Your task to perform on an android device: clear all cookies in the chrome app Image 0: 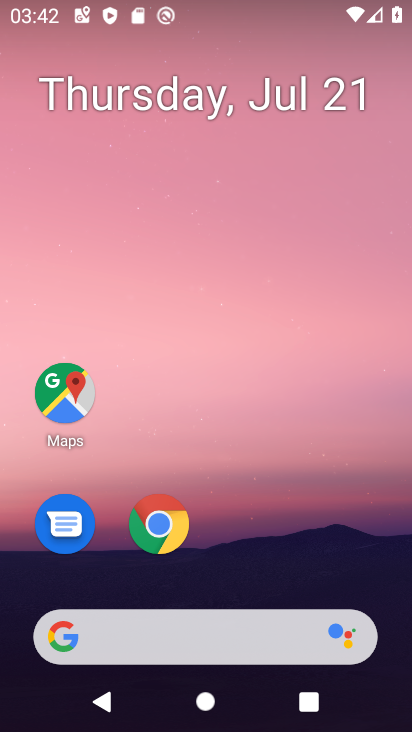
Step 0: click (179, 523)
Your task to perform on an android device: clear all cookies in the chrome app Image 1: 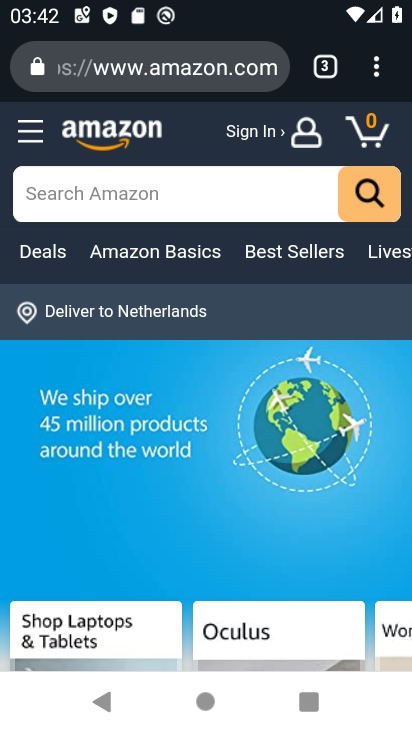
Step 1: click (376, 70)
Your task to perform on an android device: clear all cookies in the chrome app Image 2: 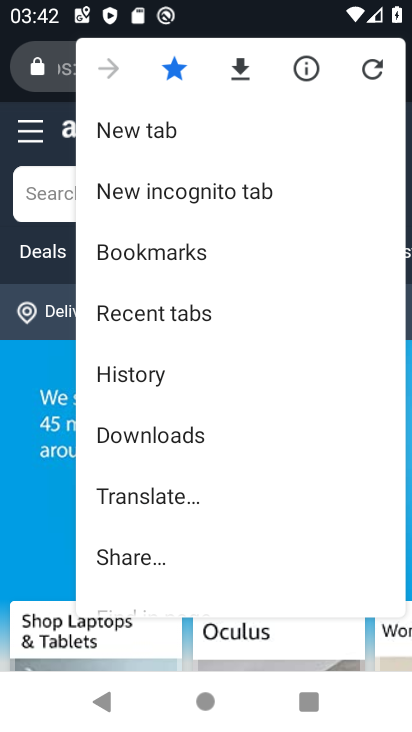
Step 2: click (148, 372)
Your task to perform on an android device: clear all cookies in the chrome app Image 3: 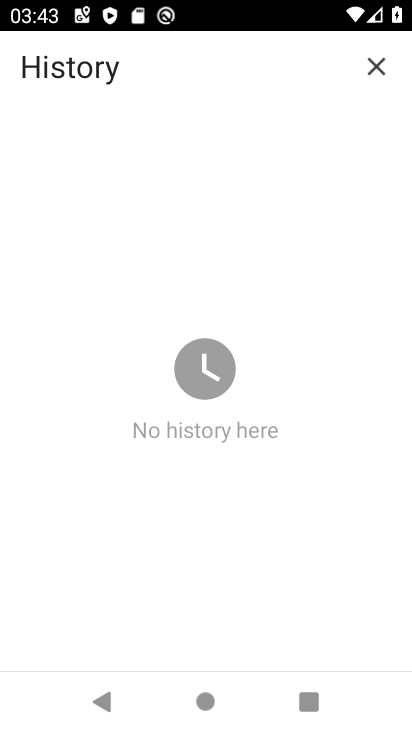
Step 3: click (380, 59)
Your task to perform on an android device: clear all cookies in the chrome app Image 4: 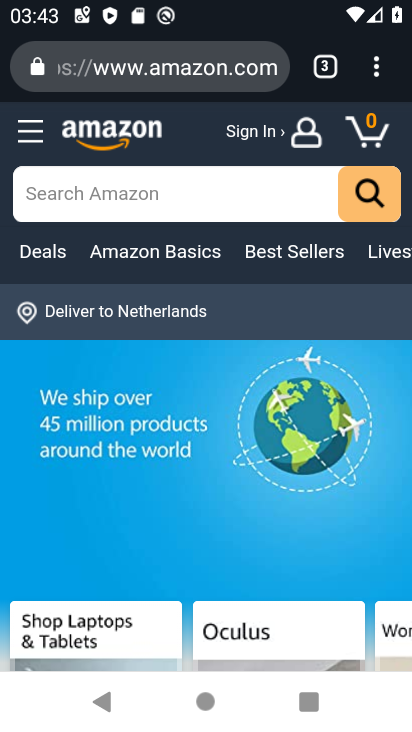
Step 4: click (377, 72)
Your task to perform on an android device: clear all cookies in the chrome app Image 5: 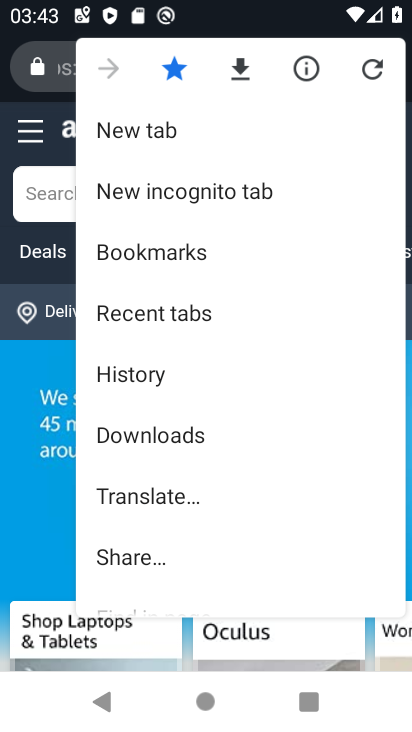
Step 5: drag from (257, 439) to (280, 107)
Your task to perform on an android device: clear all cookies in the chrome app Image 6: 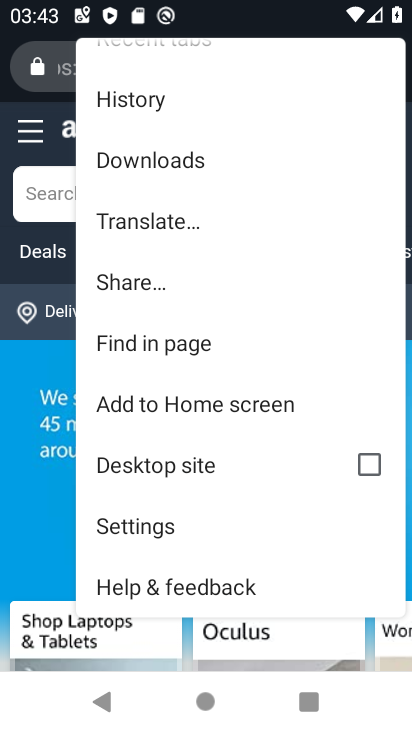
Step 6: click (159, 524)
Your task to perform on an android device: clear all cookies in the chrome app Image 7: 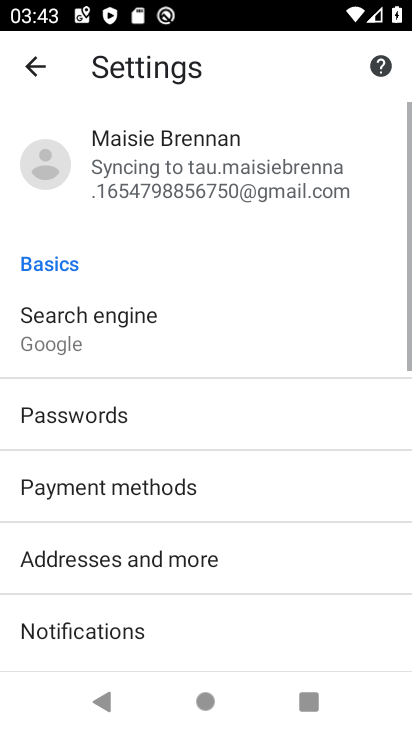
Step 7: drag from (213, 526) to (290, 51)
Your task to perform on an android device: clear all cookies in the chrome app Image 8: 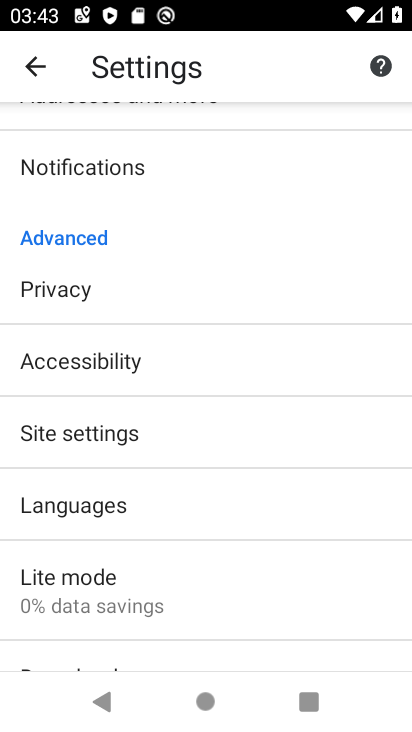
Step 8: click (113, 431)
Your task to perform on an android device: clear all cookies in the chrome app Image 9: 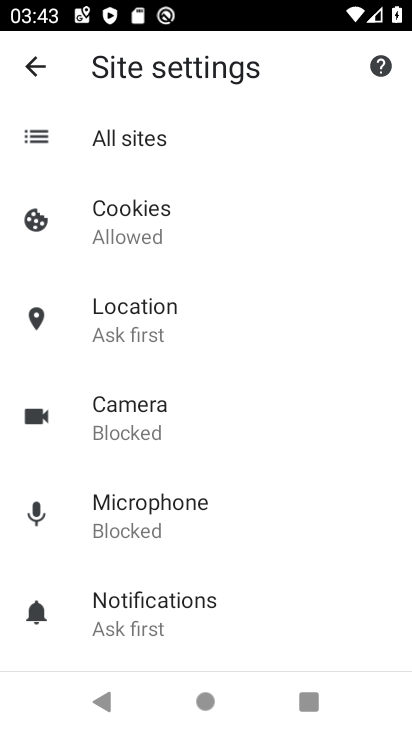
Step 9: click (37, 66)
Your task to perform on an android device: clear all cookies in the chrome app Image 10: 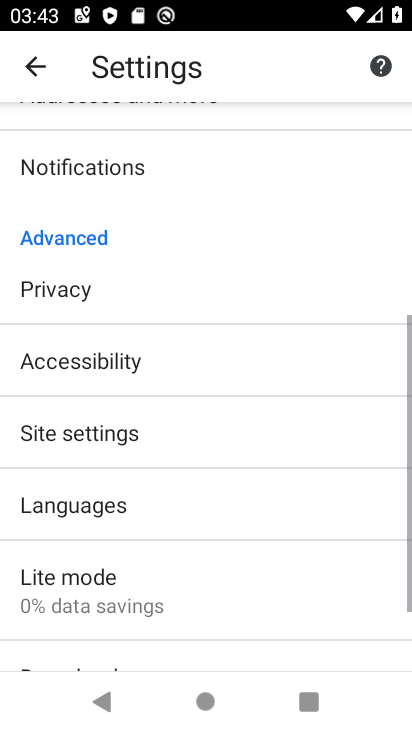
Step 10: drag from (217, 542) to (200, 261)
Your task to perform on an android device: clear all cookies in the chrome app Image 11: 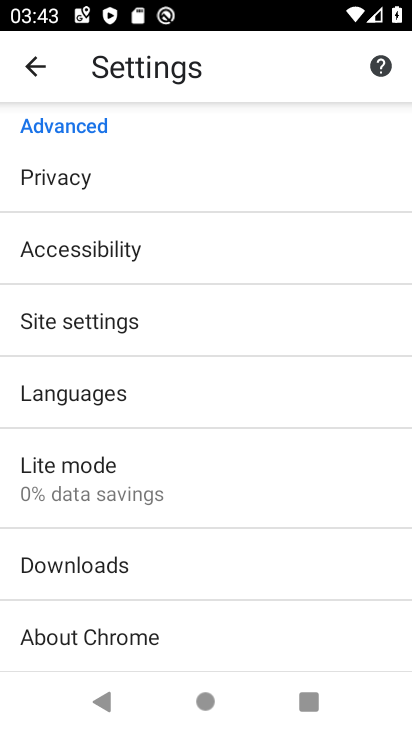
Step 11: click (79, 173)
Your task to perform on an android device: clear all cookies in the chrome app Image 12: 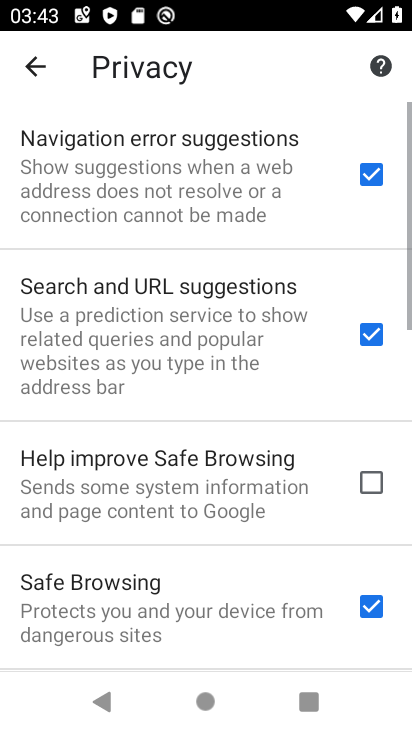
Step 12: drag from (230, 590) to (263, 42)
Your task to perform on an android device: clear all cookies in the chrome app Image 13: 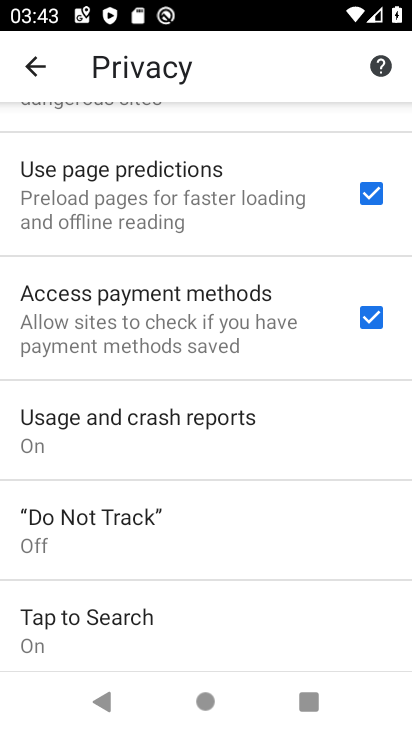
Step 13: drag from (231, 521) to (295, 39)
Your task to perform on an android device: clear all cookies in the chrome app Image 14: 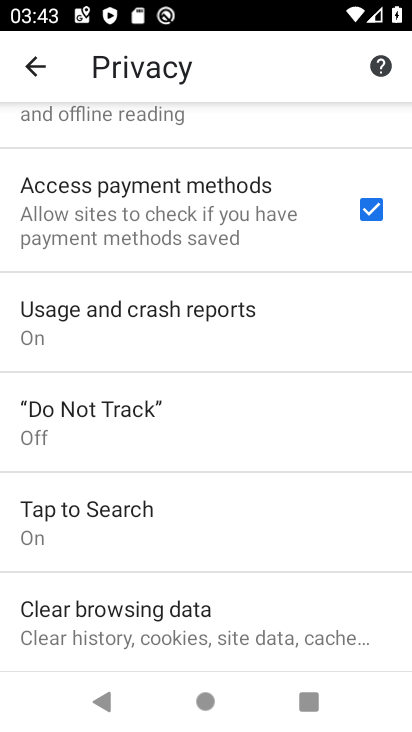
Step 14: click (220, 627)
Your task to perform on an android device: clear all cookies in the chrome app Image 15: 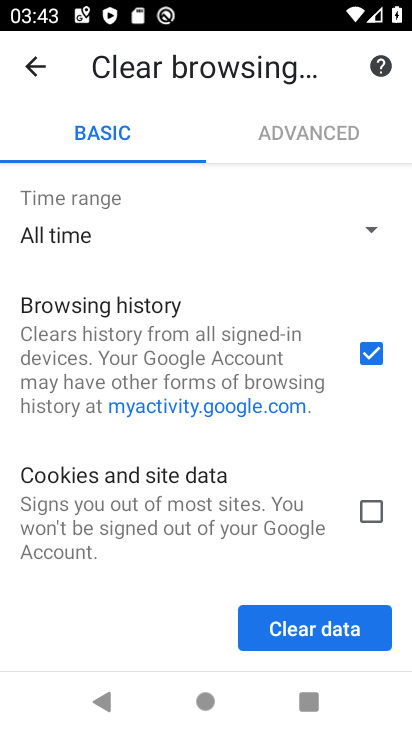
Step 15: click (368, 351)
Your task to perform on an android device: clear all cookies in the chrome app Image 16: 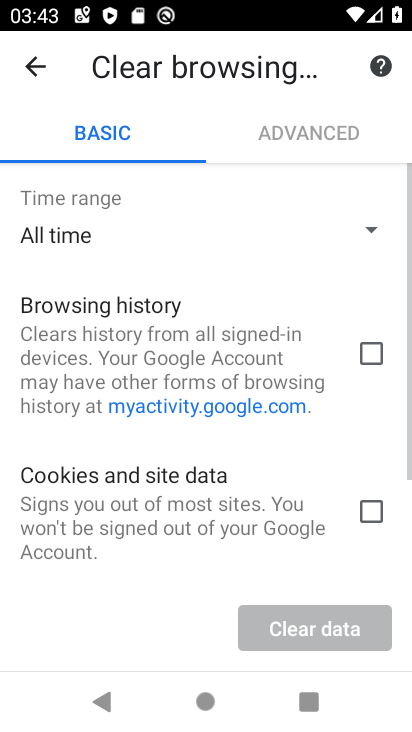
Step 16: click (364, 507)
Your task to perform on an android device: clear all cookies in the chrome app Image 17: 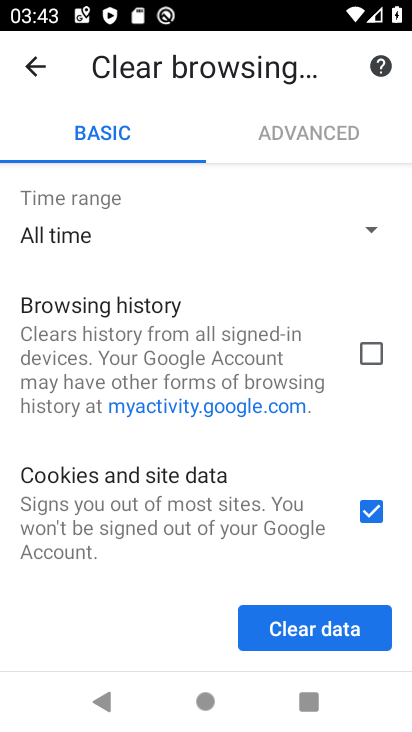
Step 17: click (349, 631)
Your task to perform on an android device: clear all cookies in the chrome app Image 18: 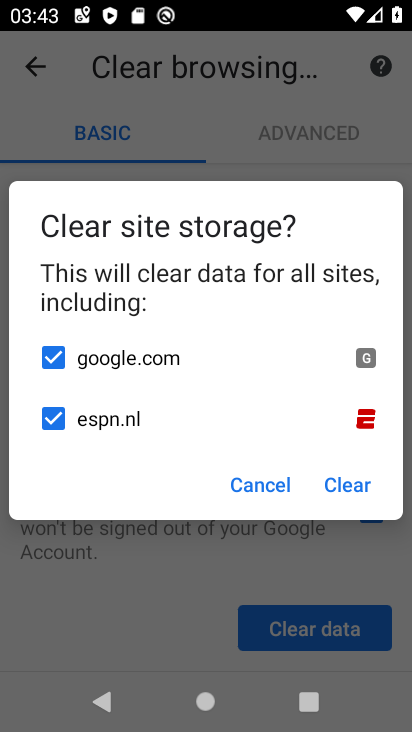
Step 18: click (363, 487)
Your task to perform on an android device: clear all cookies in the chrome app Image 19: 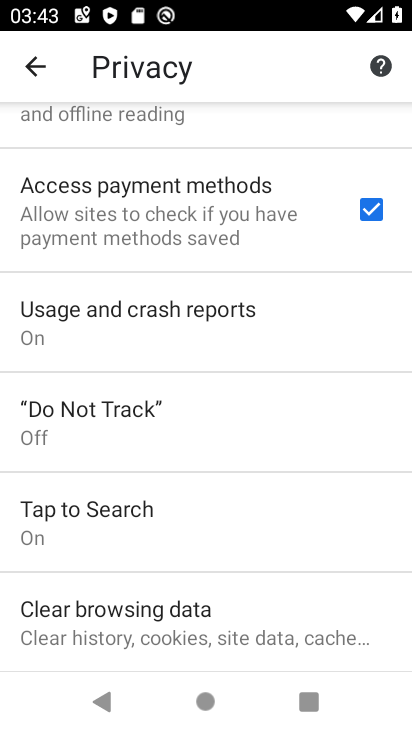
Step 19: task complete